Your task to perform on an android device: Search for seafood restaurants on Google Maps Image 0: 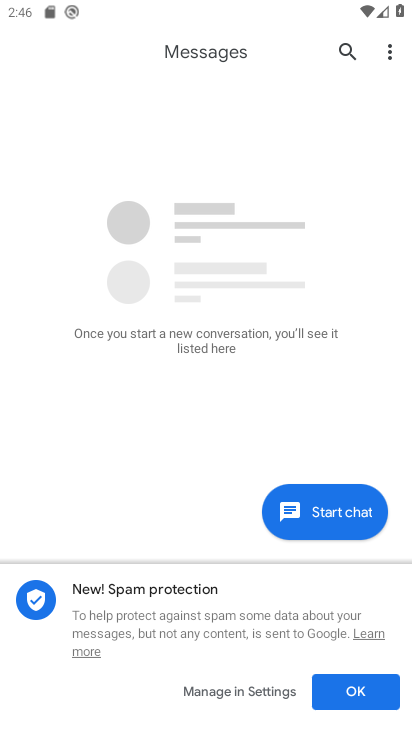
Step 0: press home button
Your task to perform on an android device: Search for seafood restaurants on Google Maps Image 1: 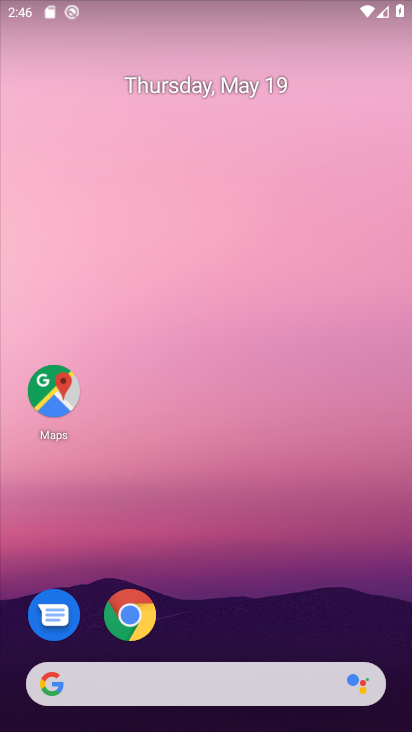
Step 1: click (32, 398)
Your task to perform on an android device: Search for seafood restaurants on Google Maps Image 2: 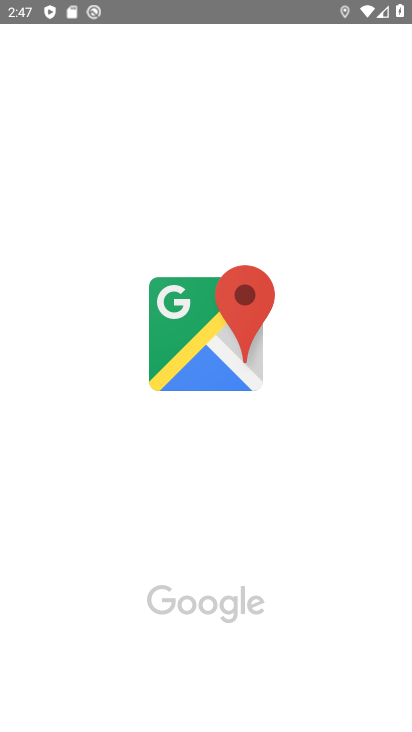
Step 2: task complete